Your task to perform on an android device: Go to Amazon Image 0: 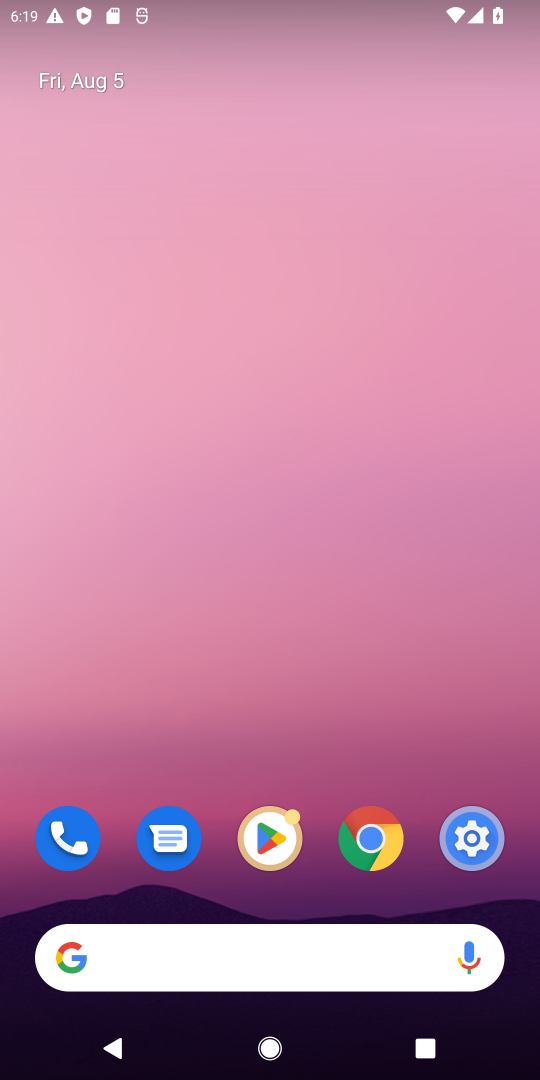
Step 0: press home button
Your task to perform on an android device: Go to Amazon Image 1: 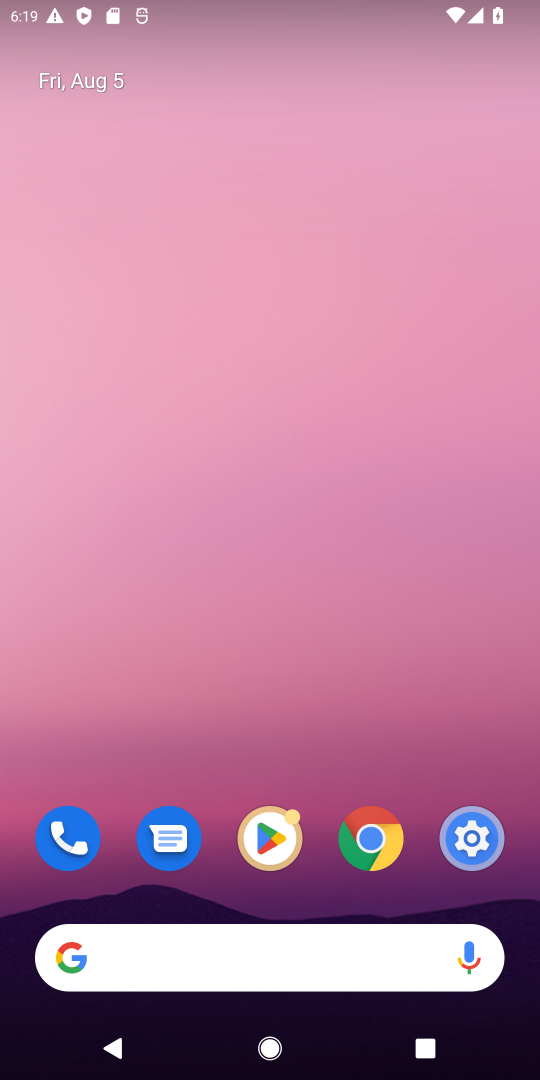
Step 1: drag from (281, 732) to (276, 41)
Your task to perform on an android device: Go to Amazon Image 2: 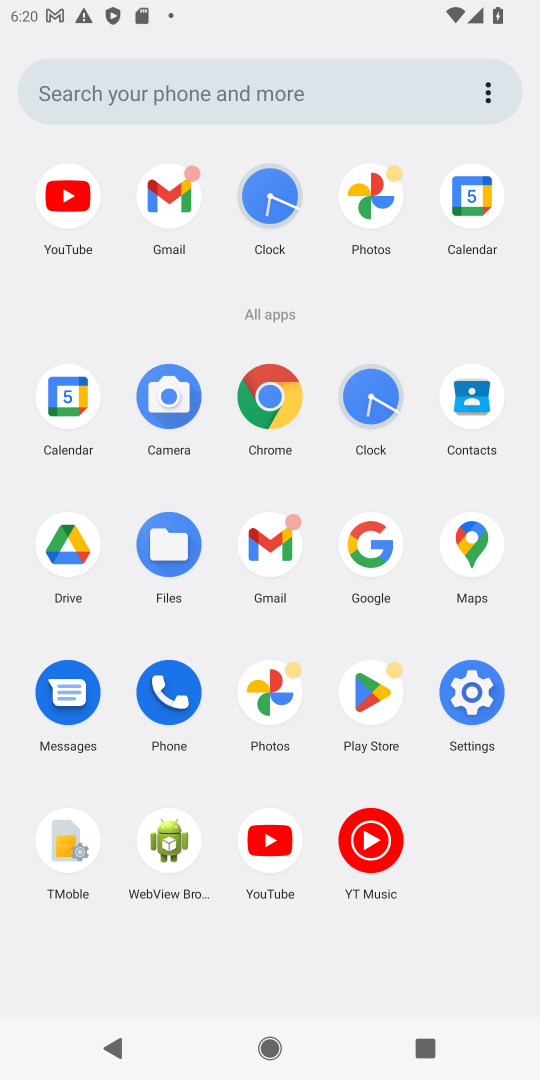
Step 2: click (362, 546)
Your task to perform on an android device: Go to Amazon Image 3: 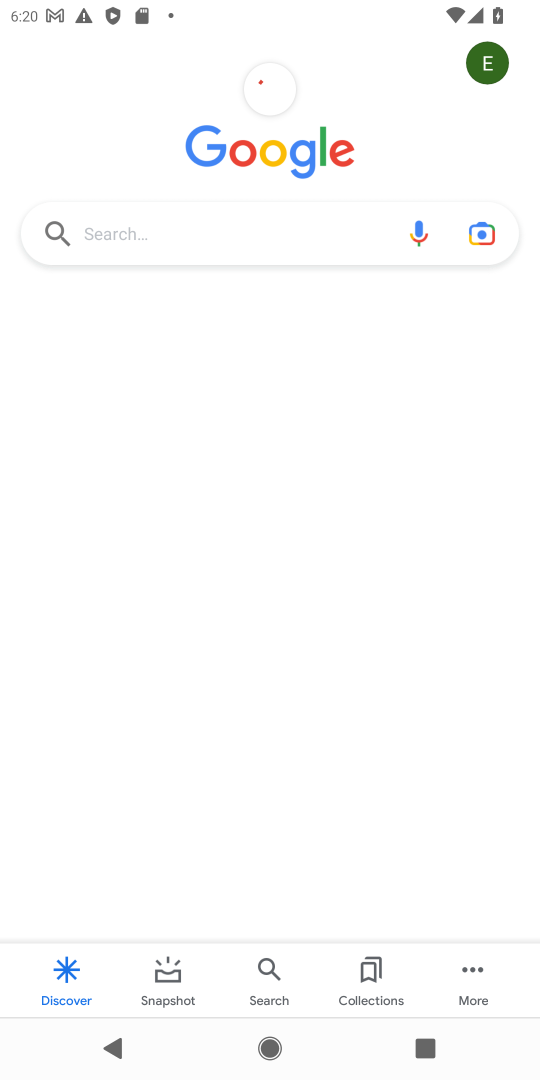
Step 3: type "Amazon"
Your task to perform on an android device: Go to Amazon Image 4: 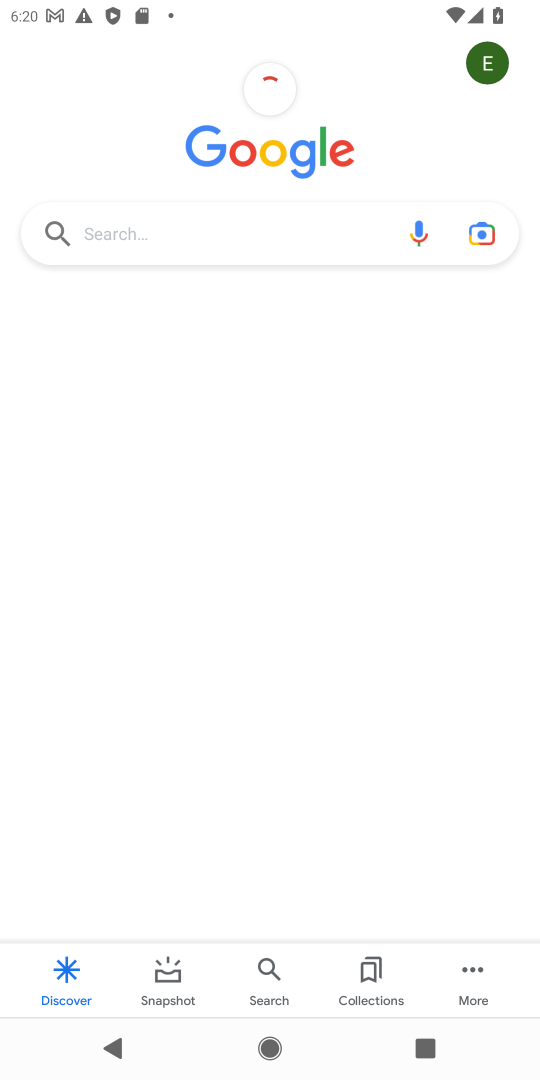
Step 4: click (186, 240)
Your task to perform on an android device: Go to Amazon Image 5: 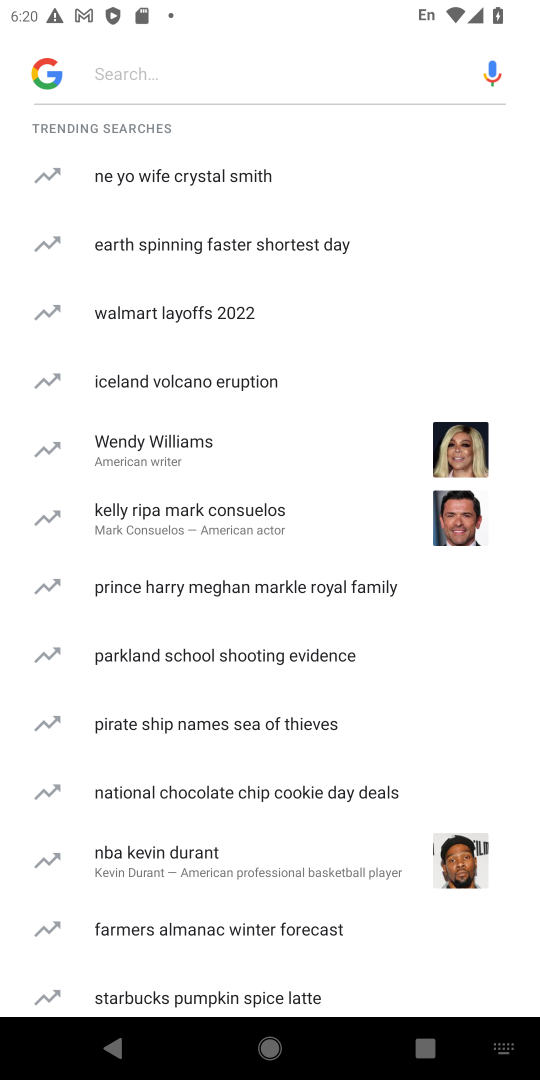
Step 5: type "Amazon"
Your task to perform on an android device: Go to Amazon Image 6: 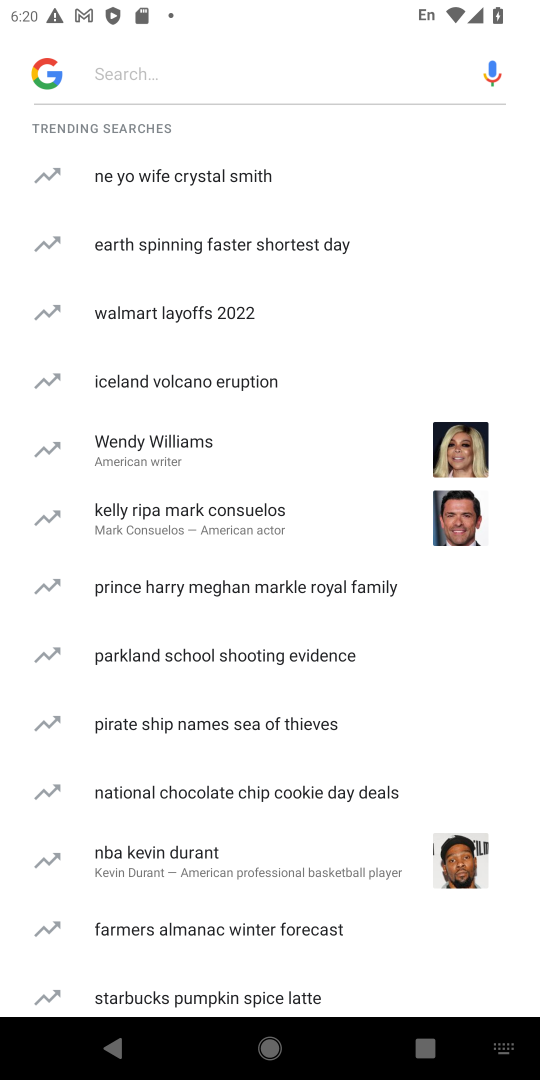
Step 6: click (86, 60)
Your task to perform on an android device: Go to Amazon Image 7: 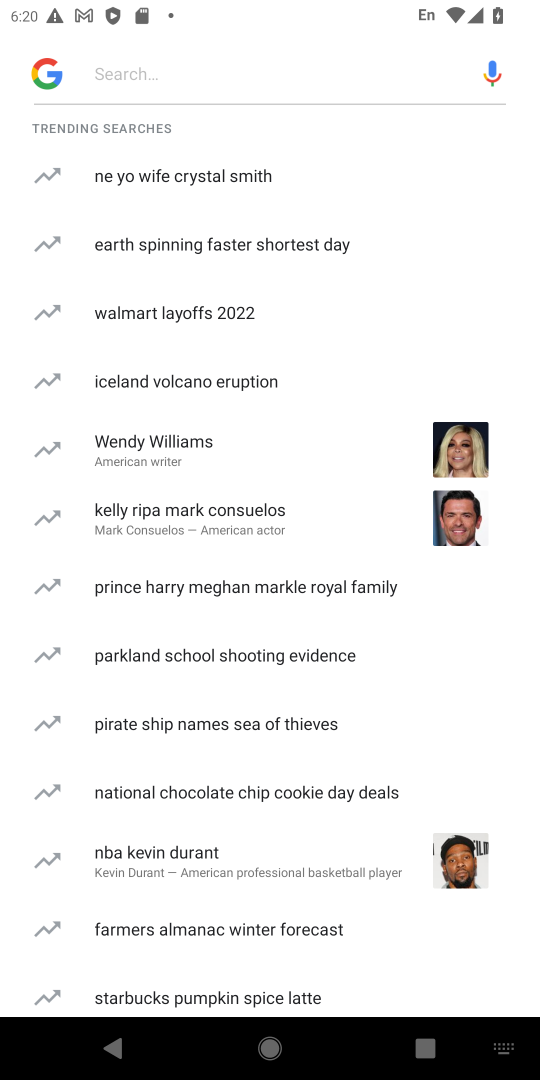
Step 7: click (150, 86)
Your task to perform on an android device: Go to Amazon Image 8: 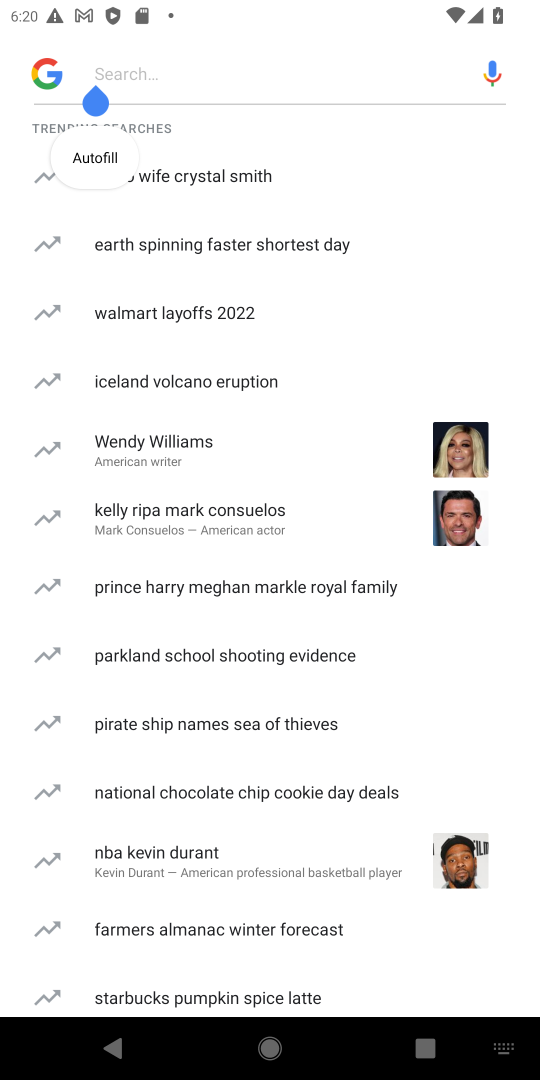
Step 8: type "Amazon"
Your task to perform on an android device: Go to Amazon Image 9: 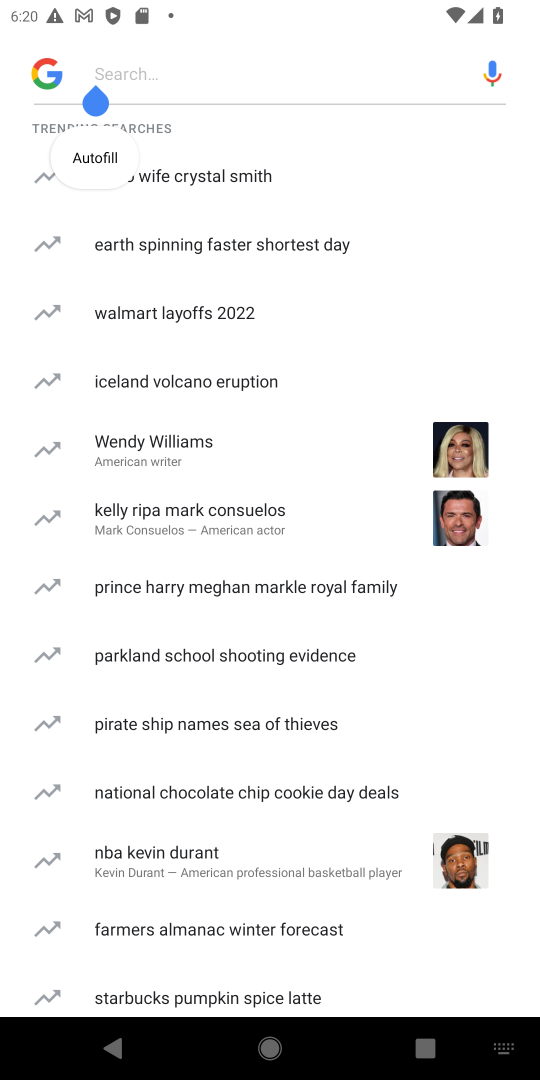
Step 9: click (112, 79)
Your task to perform on an android device: Go to Amazon Image 10: 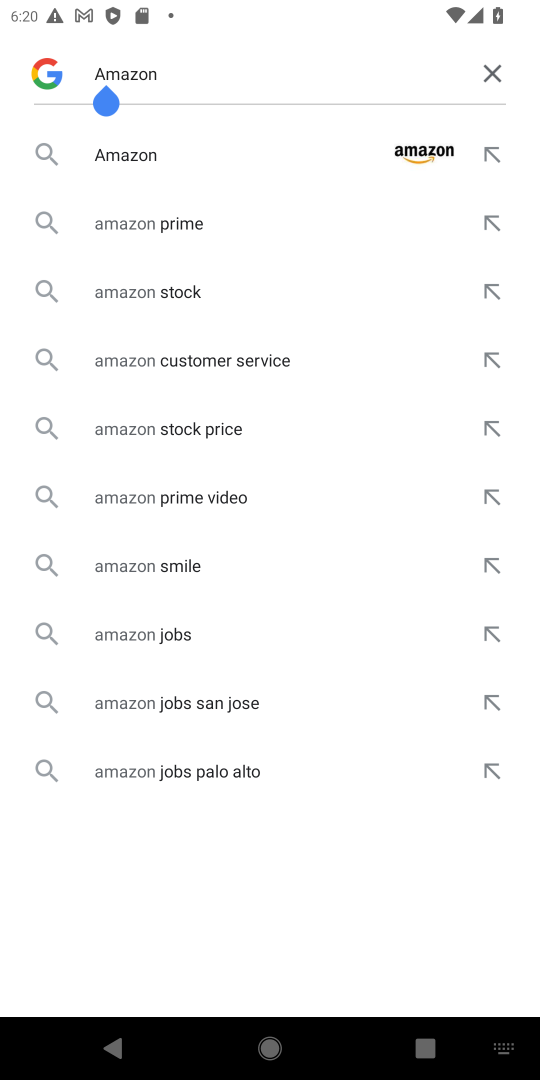
Step 10: click (407, 141)
Your task to perform on an android device: Go to Amazon Image 11: 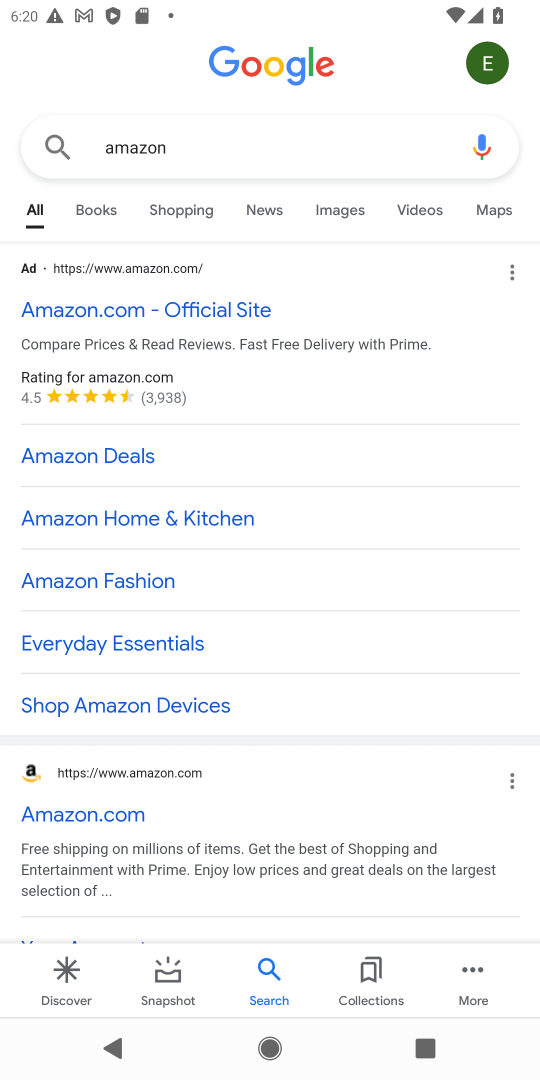
Step 11: click (78, 821)
Your task to perform on an android device: Go to Amazon Image 12: 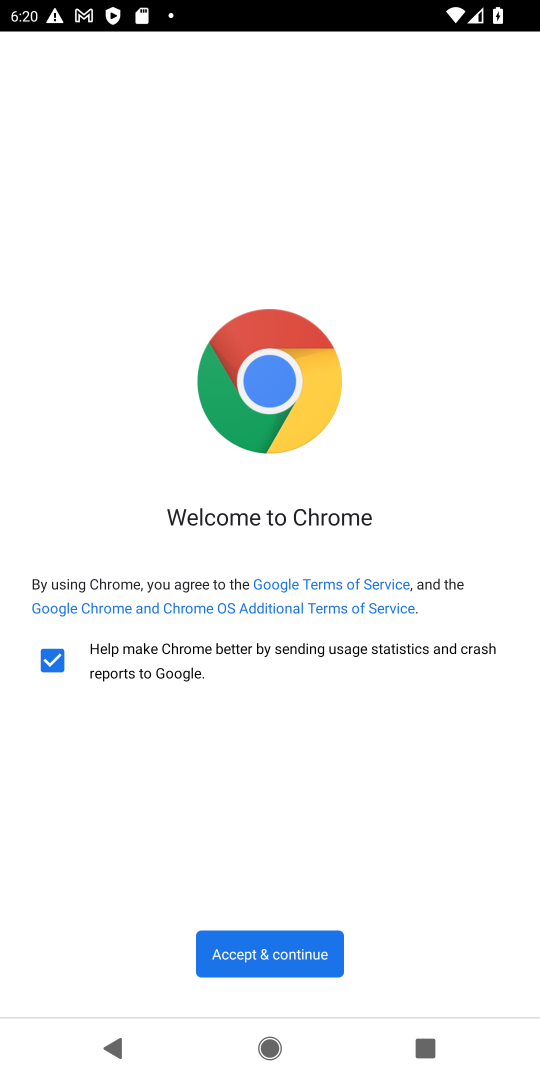
Step 12: click (245, 940)
Your task to perform on an android device: Go to Amazon Image 13: 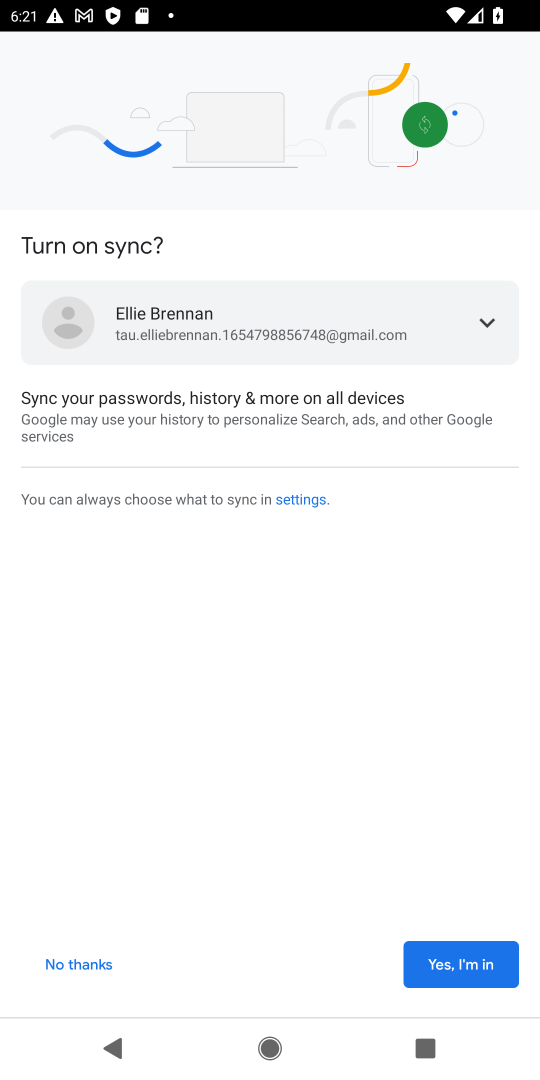
Step 13: click (489, 959)
Your task to perform on an android device: Go to Amazon Image 14: 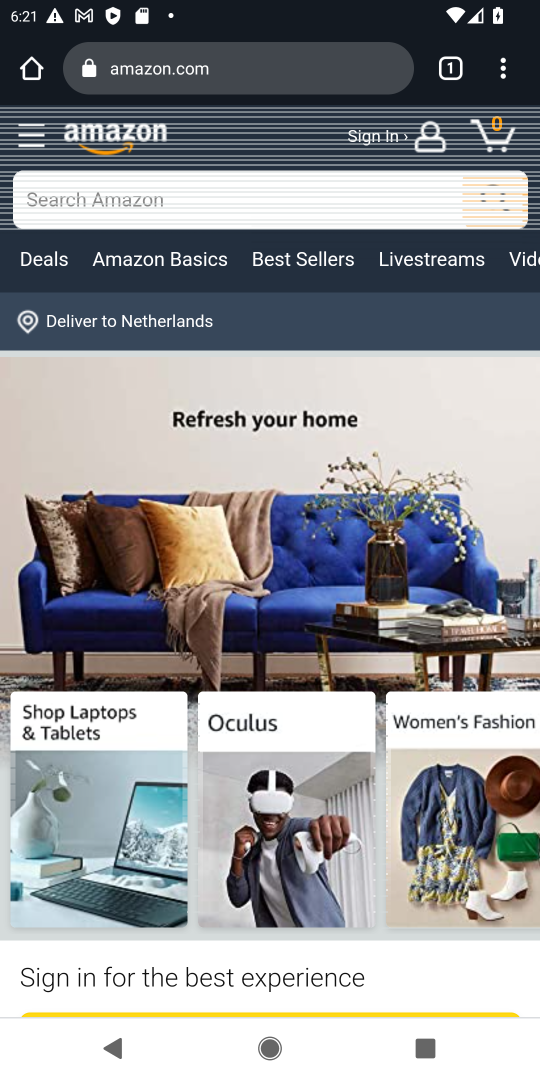
Step 14: task complete